Your task to perform on an android device: Open the Play Movies app and select the watchlist tab. Image 0: 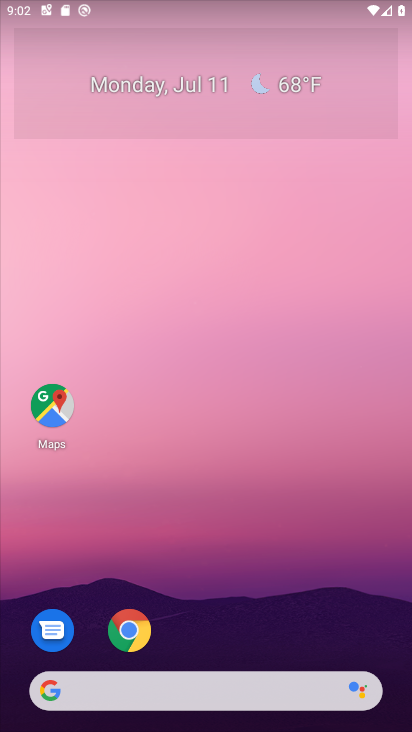
Step 0: drag from (233, 636) to (102, 14)
Your task to perform on an android device: Open the Play Movies app and select the watchlist tab. Image 1: 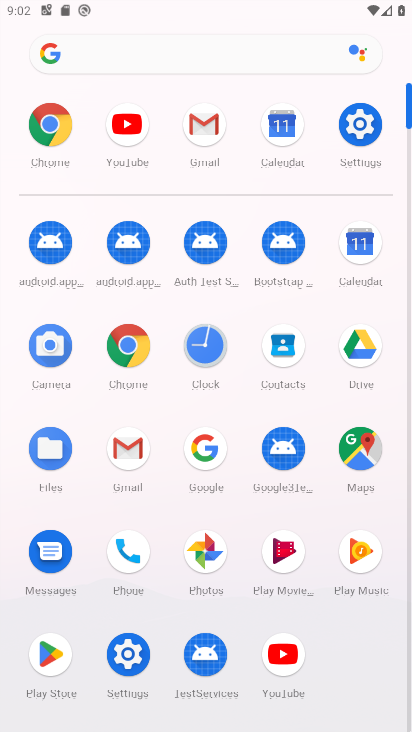
Step 1: click (278, 579)
Your task to perform on an android device: Open the Play Movies app and select the watchlist tab. Image 2: 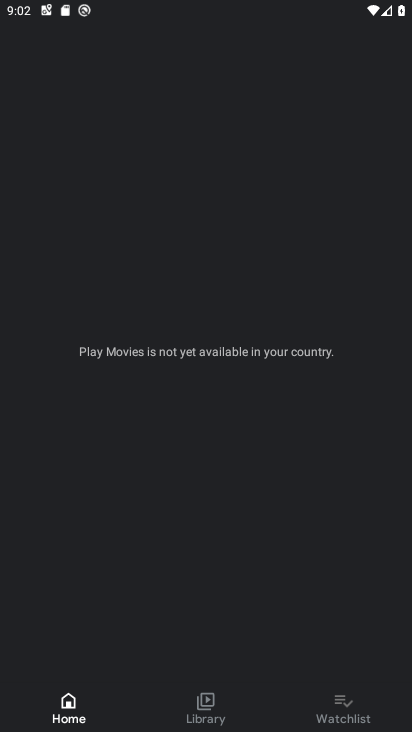
Step 2: click (324, 711)
Your task to perform on an android device: Open the Play Movies app and select the watchlist tab. Image 3: 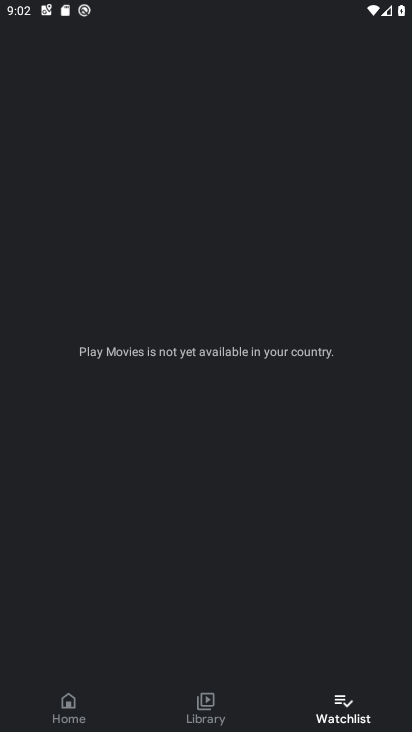
Step 3: task complete